Your task to perform on an android device: Play the last video I watched on Youtube Image 0: 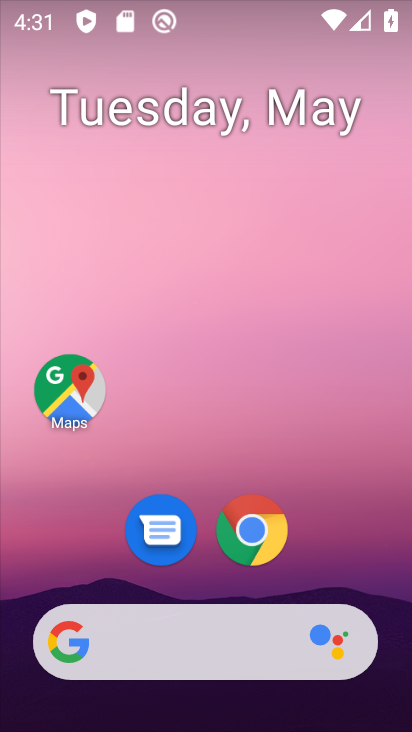
Step 0: drag from (85, 553) to (236, 147)
Your task to perform on an android device: Play the last video I watched on Youtube Image 1: 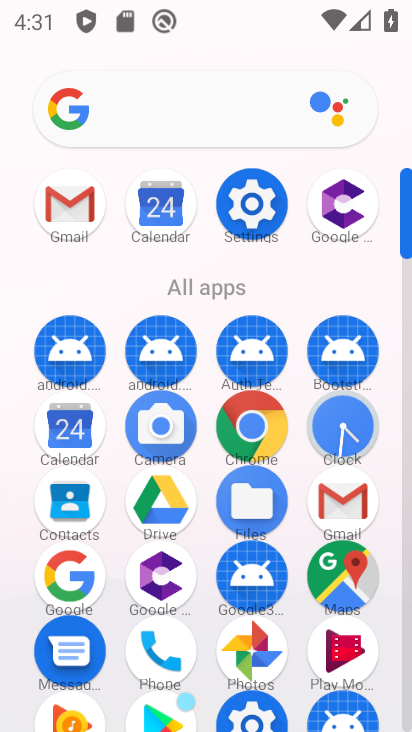
Step 1: drag from (204, 709) to (403, 351)
Your task to perform on an android device: Play the last video I watched on Youtube Image 2: 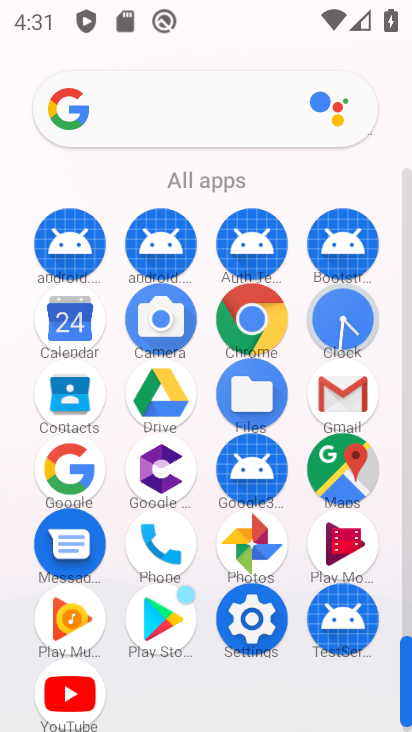
Step 2: click (62, 707)
Your task to perform on an android device: Play the last video I watched on Youtube Image 3: 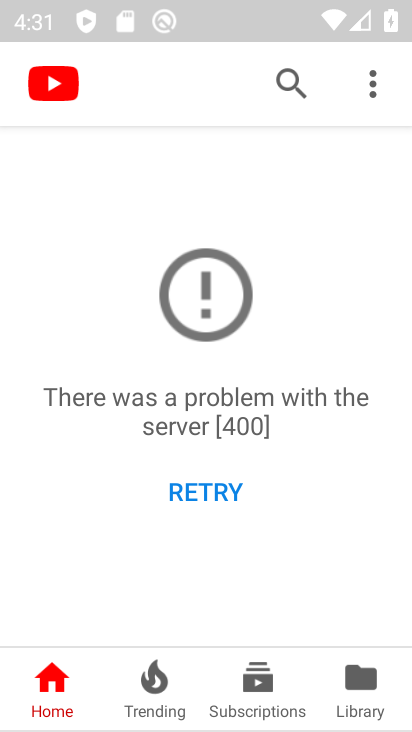
Step 3: click (374, 692)
Your task to perform on an android device: Play the last video I watched on Youtube Image 4: 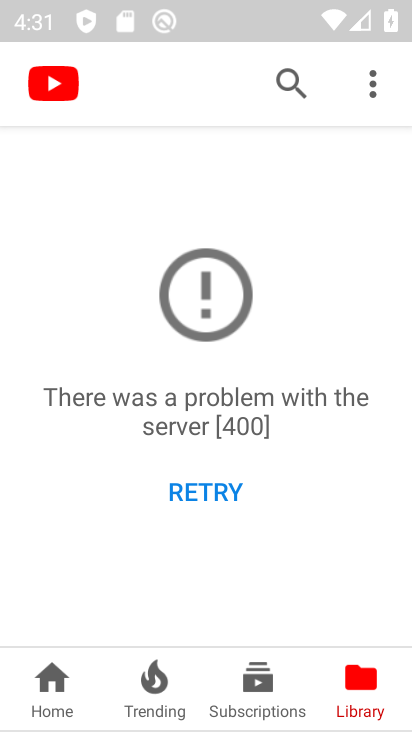
Step 4: task complete